Your task to perform on an android device: change timer sound Image 0: 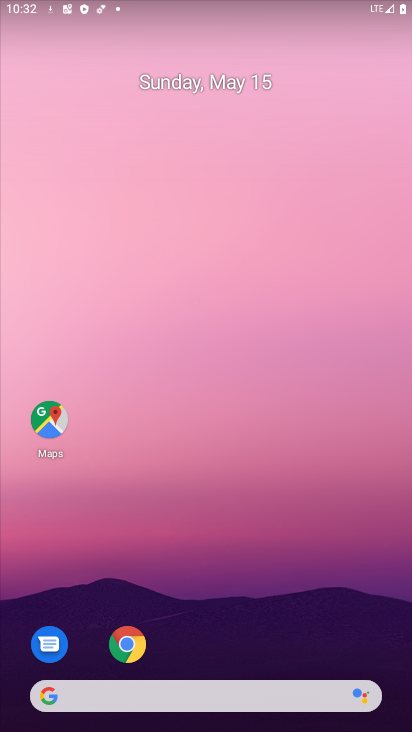
Step 0: drag from (254, 713) to (145, 324)
Your task to perform on an android device: change timer sound Image 1: 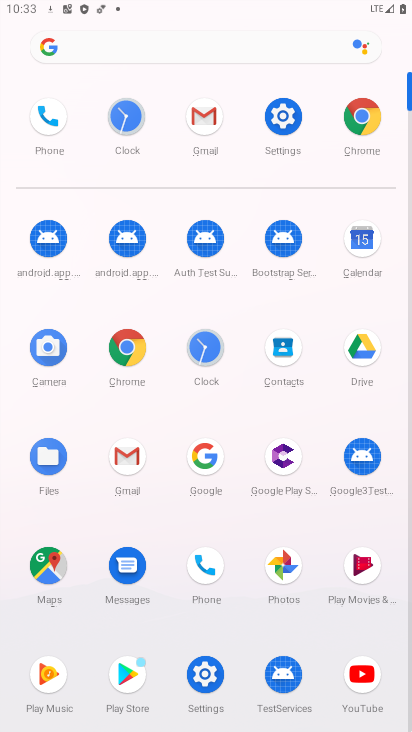
Step 1: click (127, 119)
Your task to perform on an android device: change timer sound Image 2: 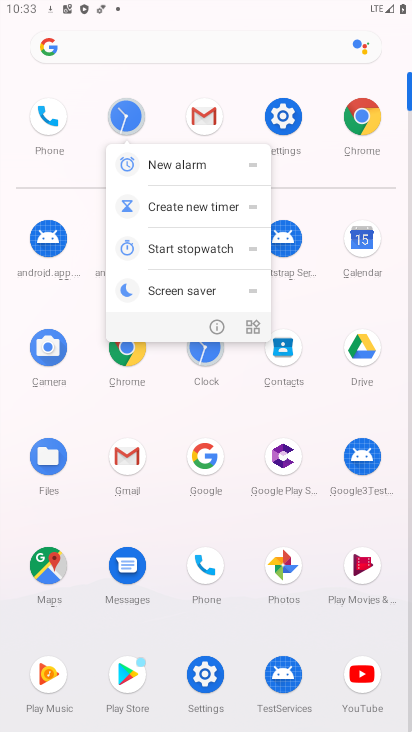
Step 2: click (121, 127)
Your task to perform on an android device: change timer sound Image 3: 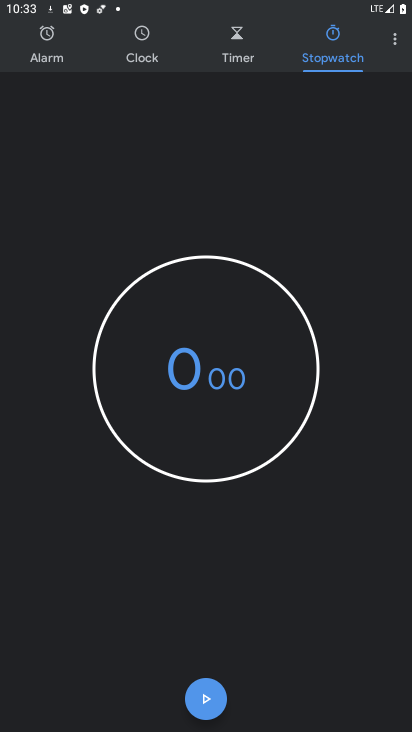
Step 3: click (392, 51)
Your task to perform on an android device: change timer sound Image 4: 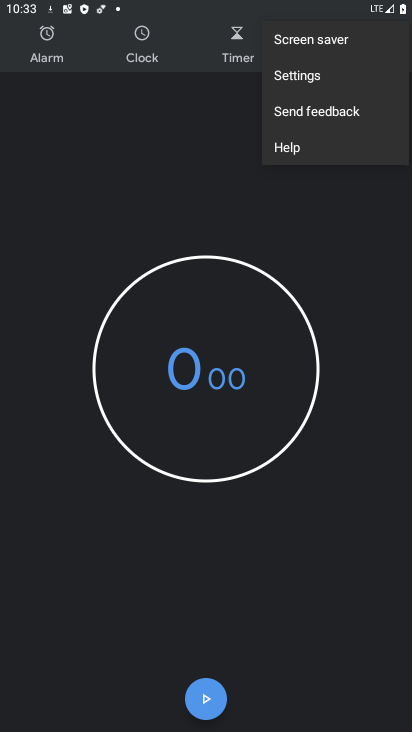
Step 4: click (331, 74)
Your task to perform on an android device: change timer sound Image 5: 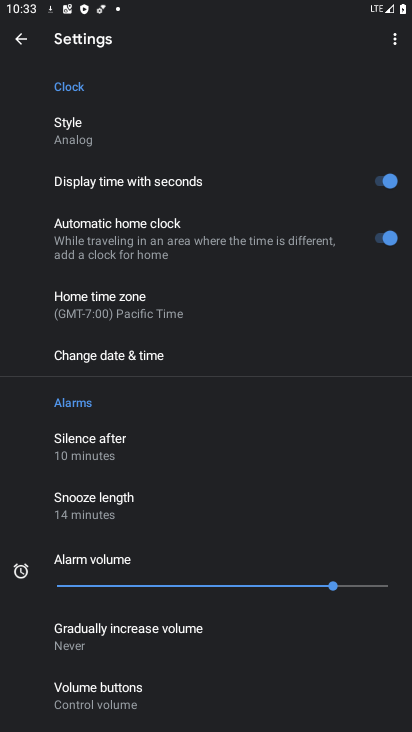
Step 5: drag from (197, 507) to (260, 253)
Your task to perform on an android device: change timer sound Image 6: 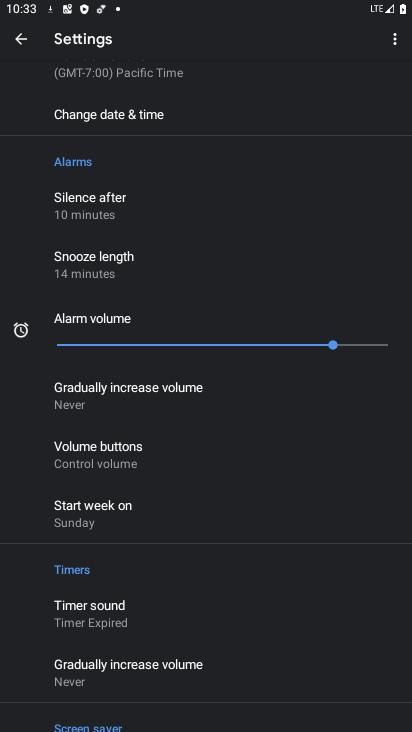
Step 6: click (127, 611)
Your task to perform on an android device: change timer sound Image 7: 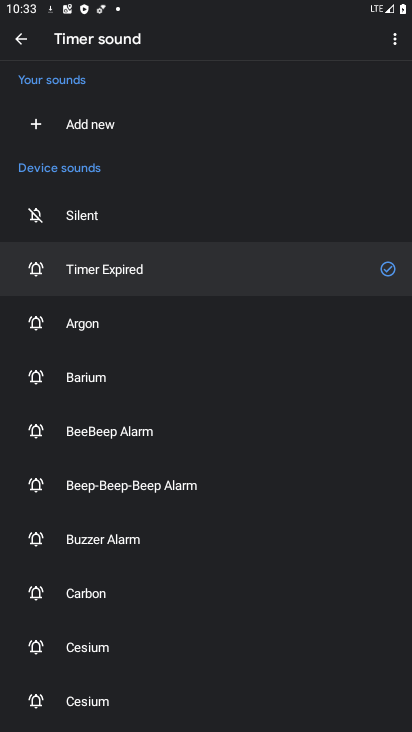
Step 7: click (82, 563)
Your task to perform on an android device: change timer sound Image 8: 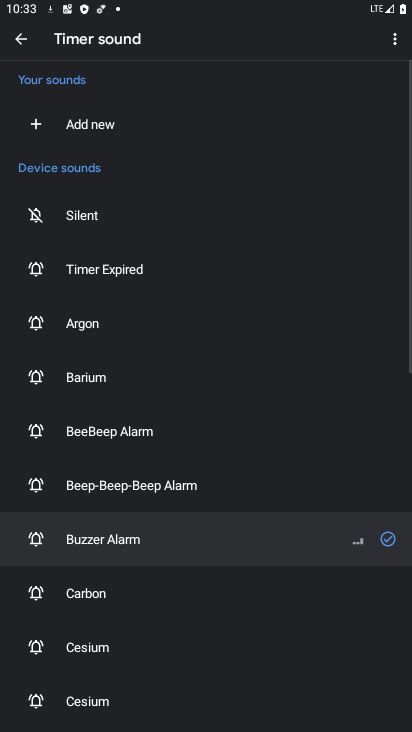
Step 8: task complete